Your task to perform on an android device: What's on my calendar today? Image 0: 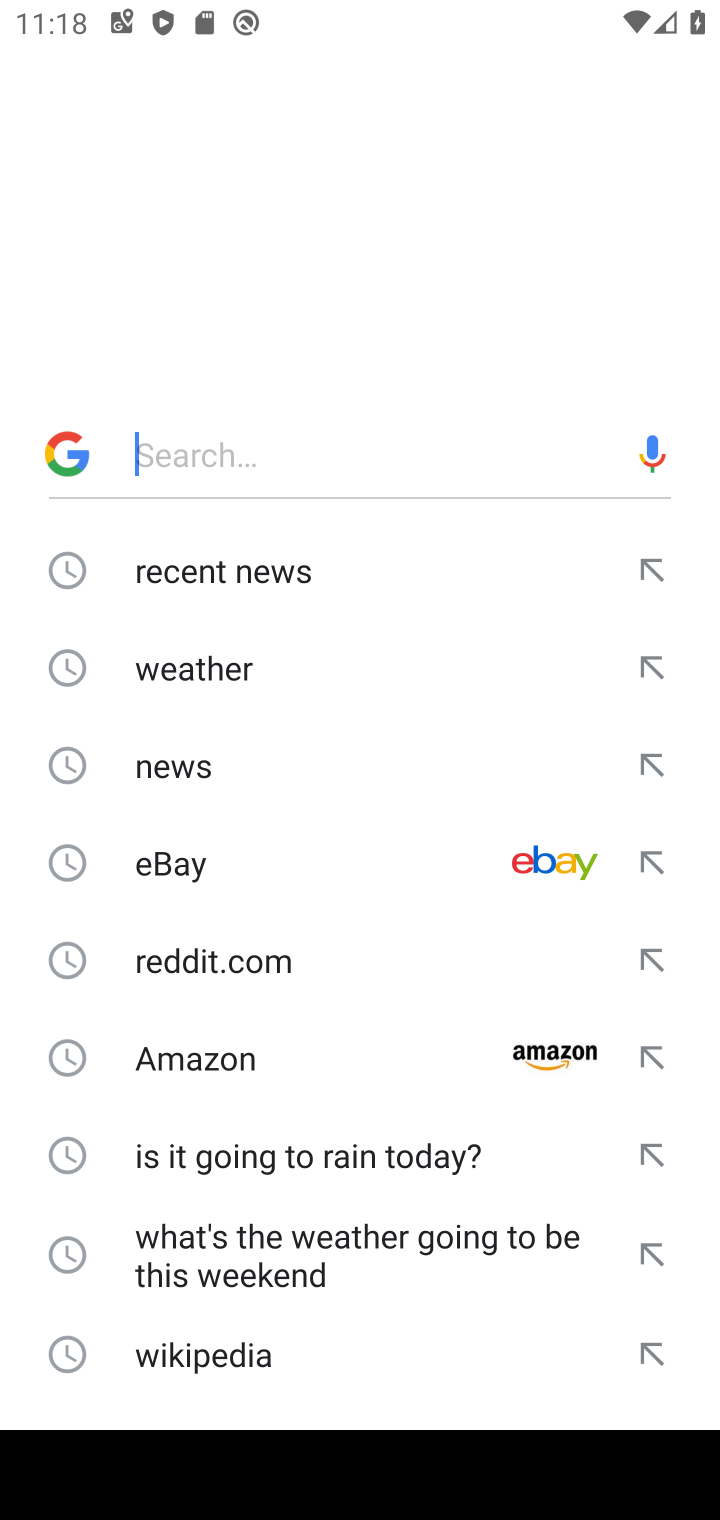
Step 0: press home button
Your task to perform on an android device: What's on my calendar today? Image 1: 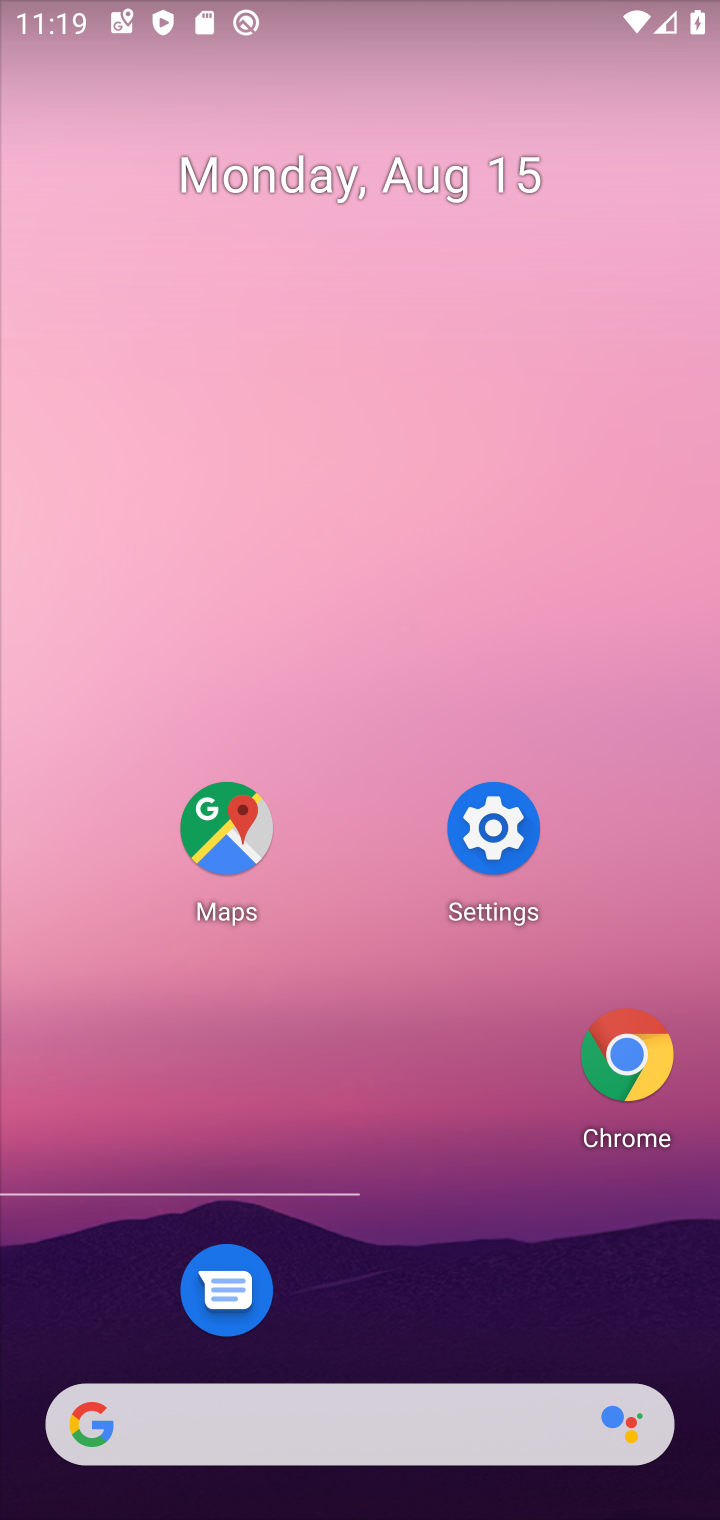
Step 1: drag from (271, 1415) to (637, 132)
Your task to perform on an android device: What's on my calendar today? Image 2: 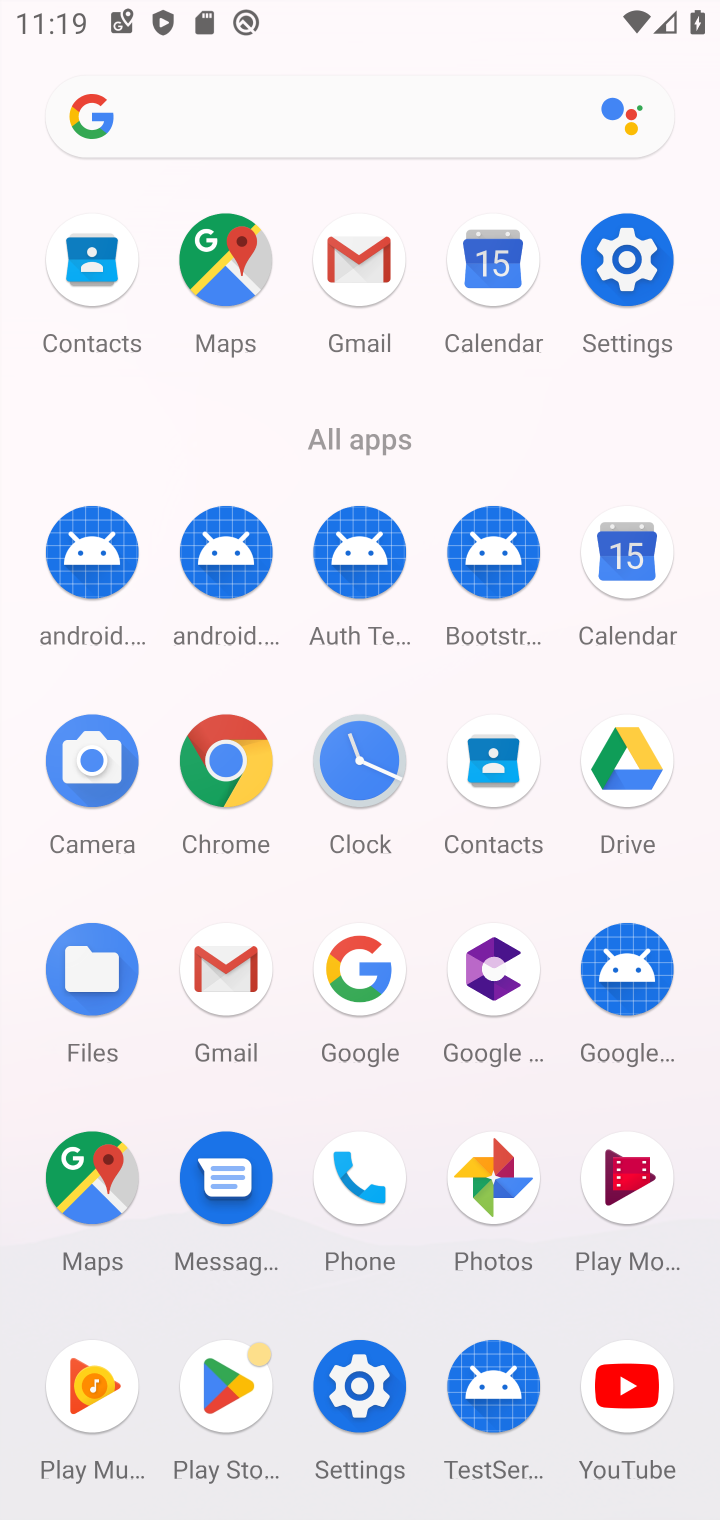
Step 2: click (631, 560)
Your task to perform on an android device: What's on my calendar today? Image 3: 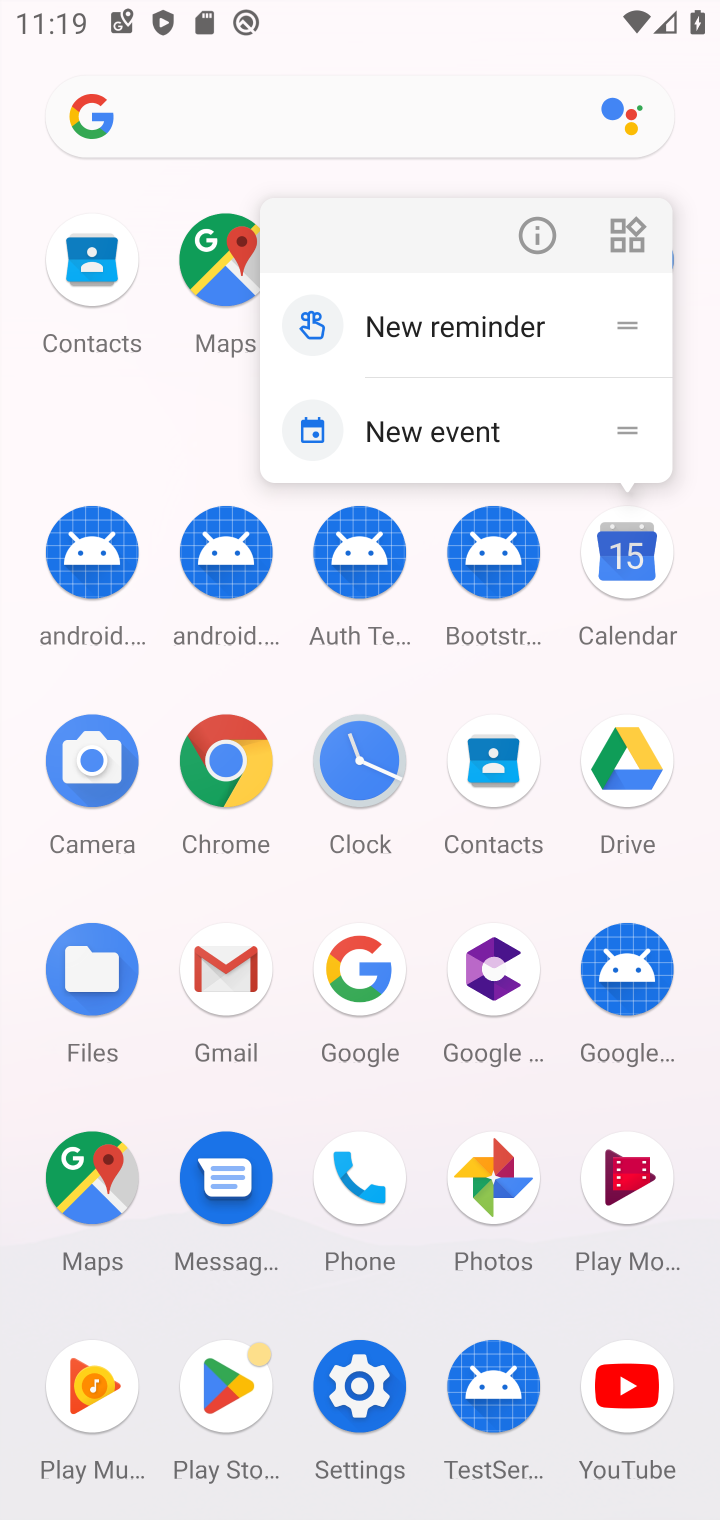
Step 3: click (630, 558)
Your task to perform on an android device: What's on my calendar today? Image 4: 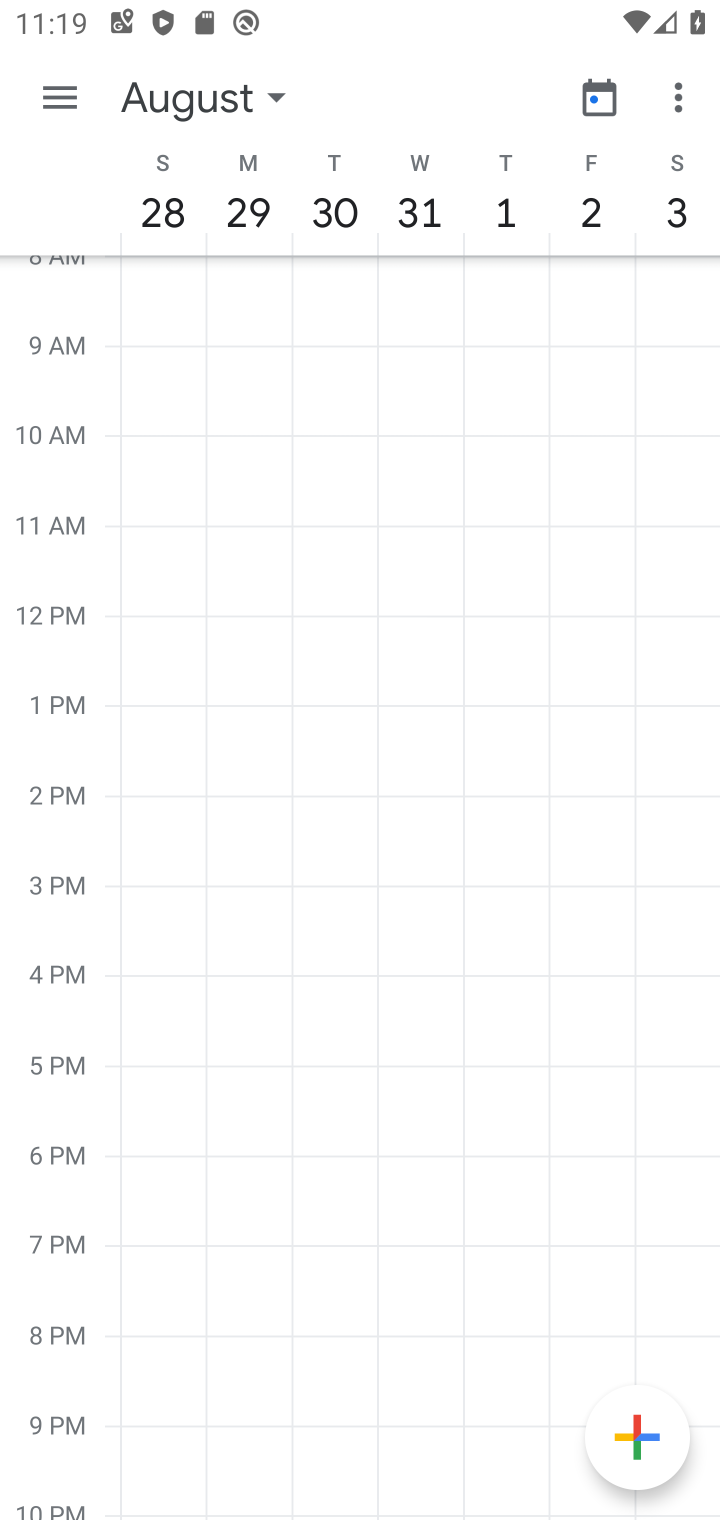
Step 4: click (164, 101)
Your task to perform on an android device: What's on my calendar today? Image 5: 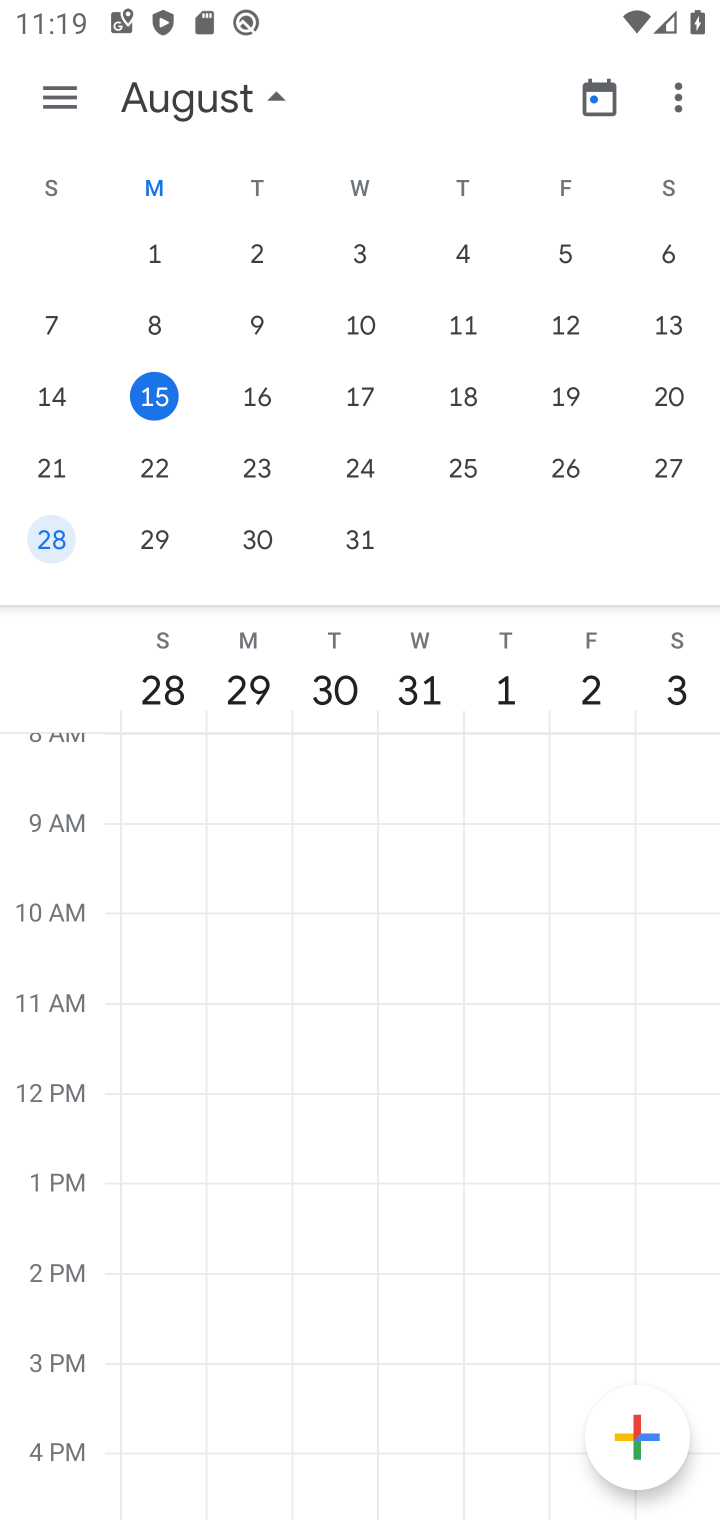
Step 5: click (144, 398)
Your task to perform on an android device: What's on my calendar today? Image 6: 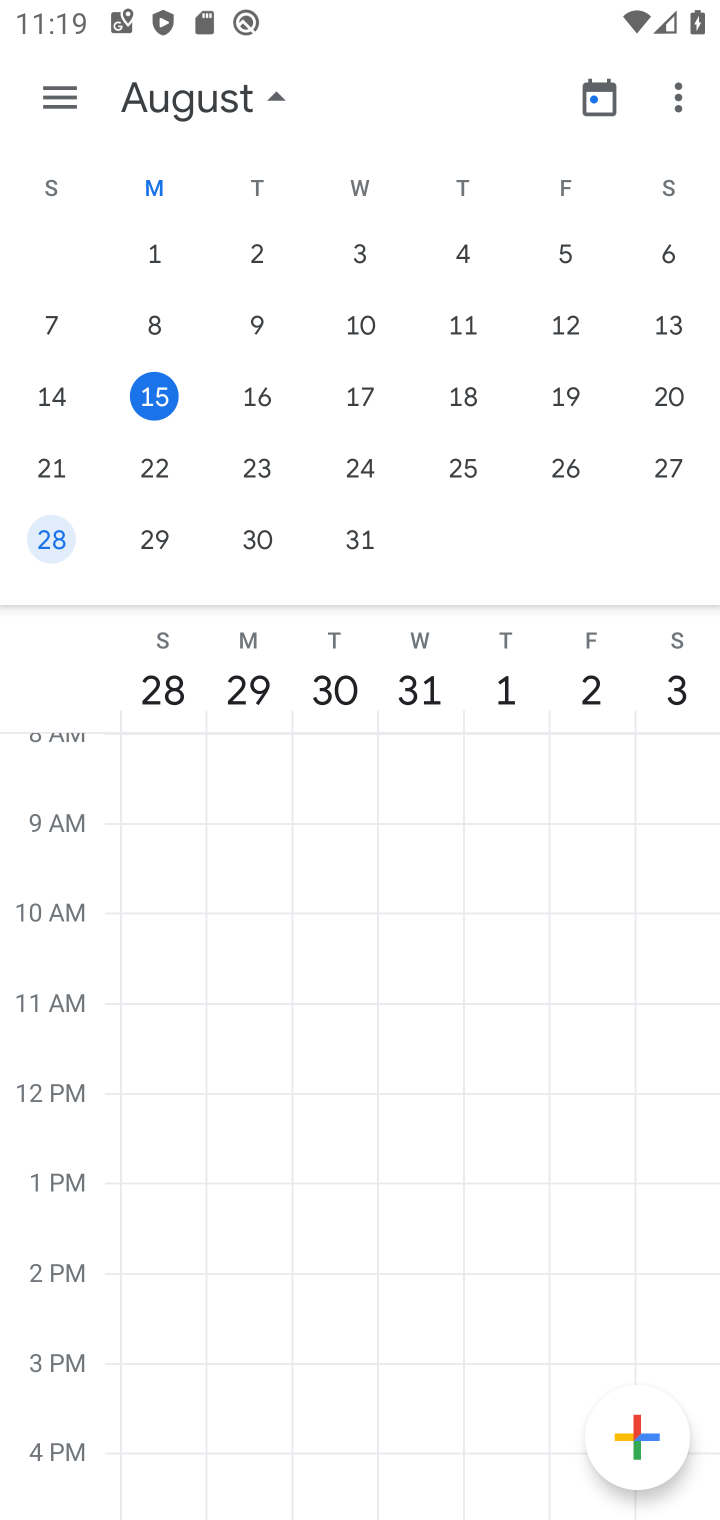
Step 6: click (184, 403)
Your task to perform on an android device: What's on my calendar today? Image 7: 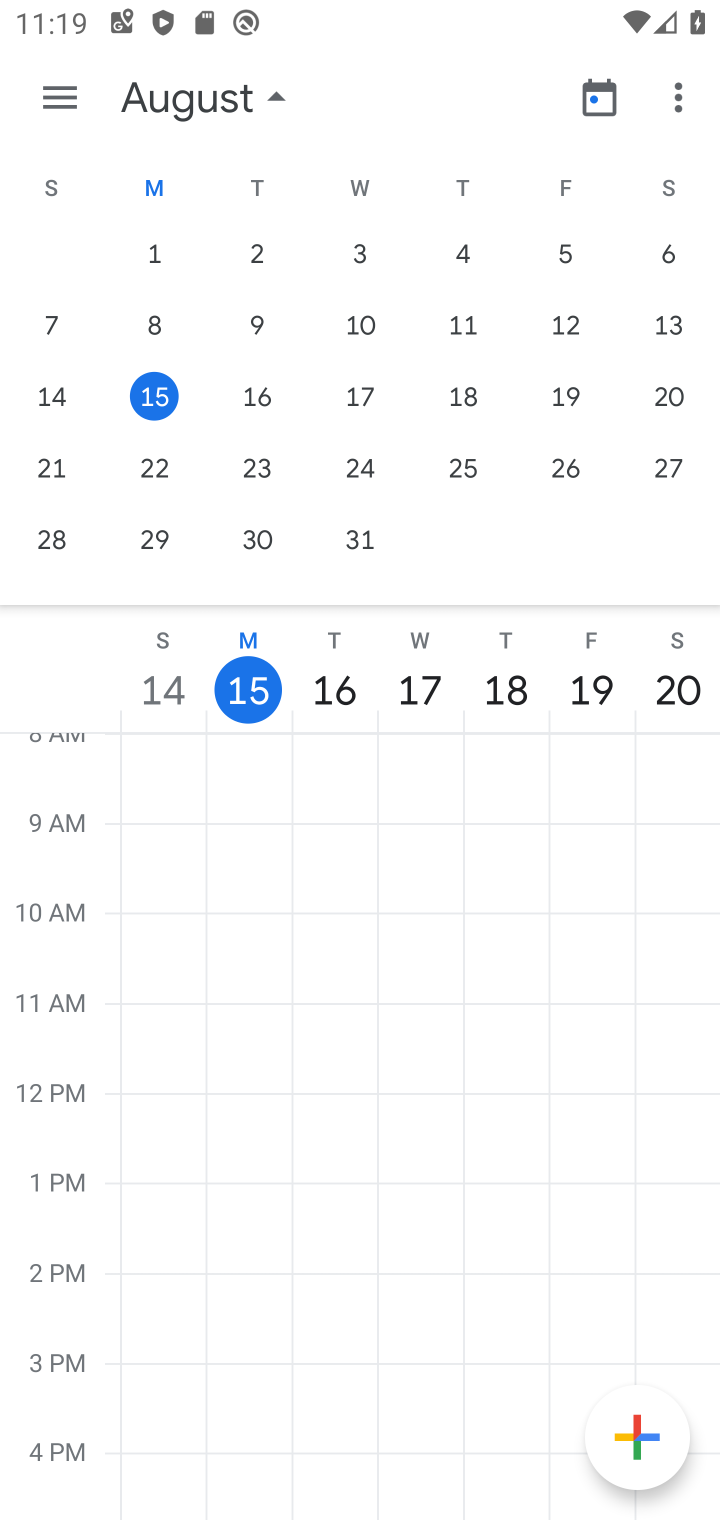
Step 7: click (48, 103)
Your task to perform on an android device: What's on my calendar today? Image 8: 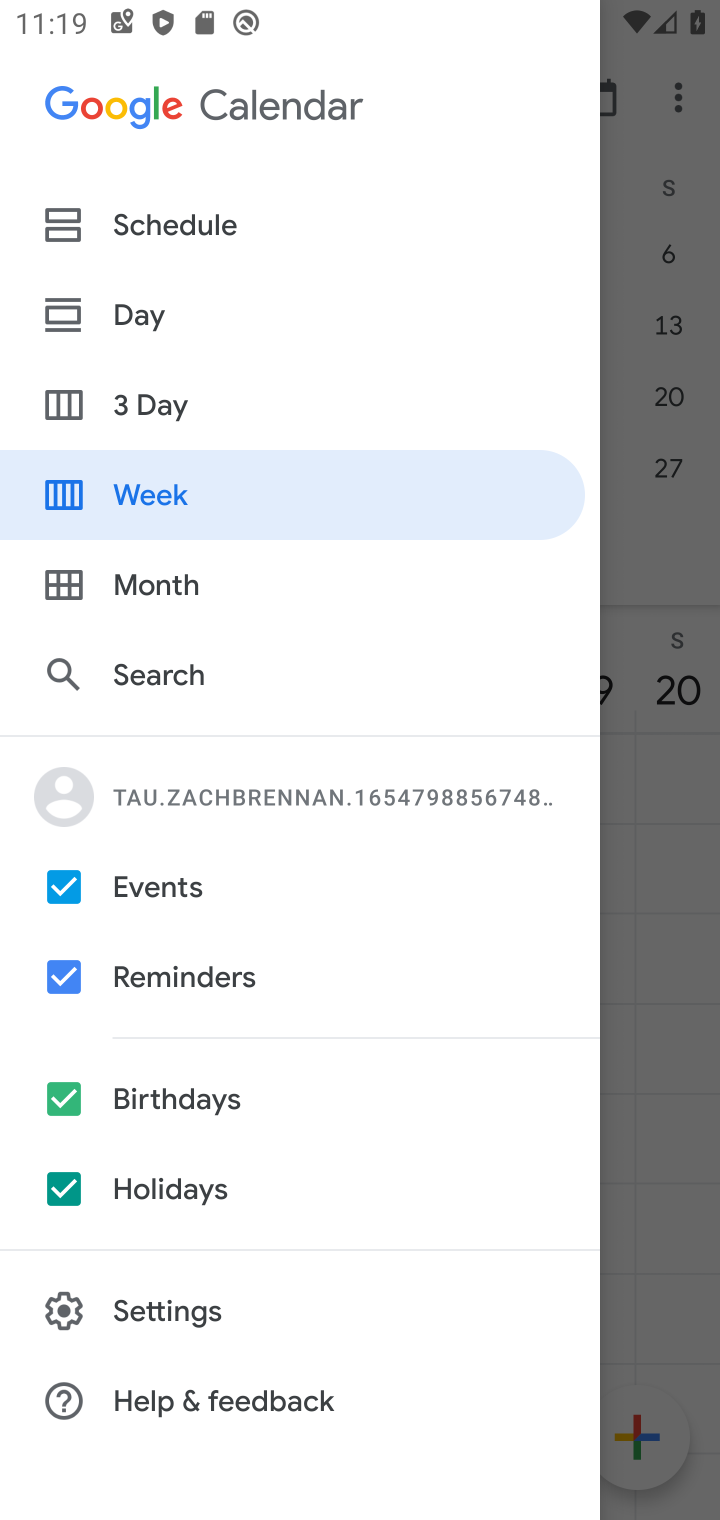
Step 8: click (145, 313)
Your task to perform on an android device: What's on my calendar today? Image 9: 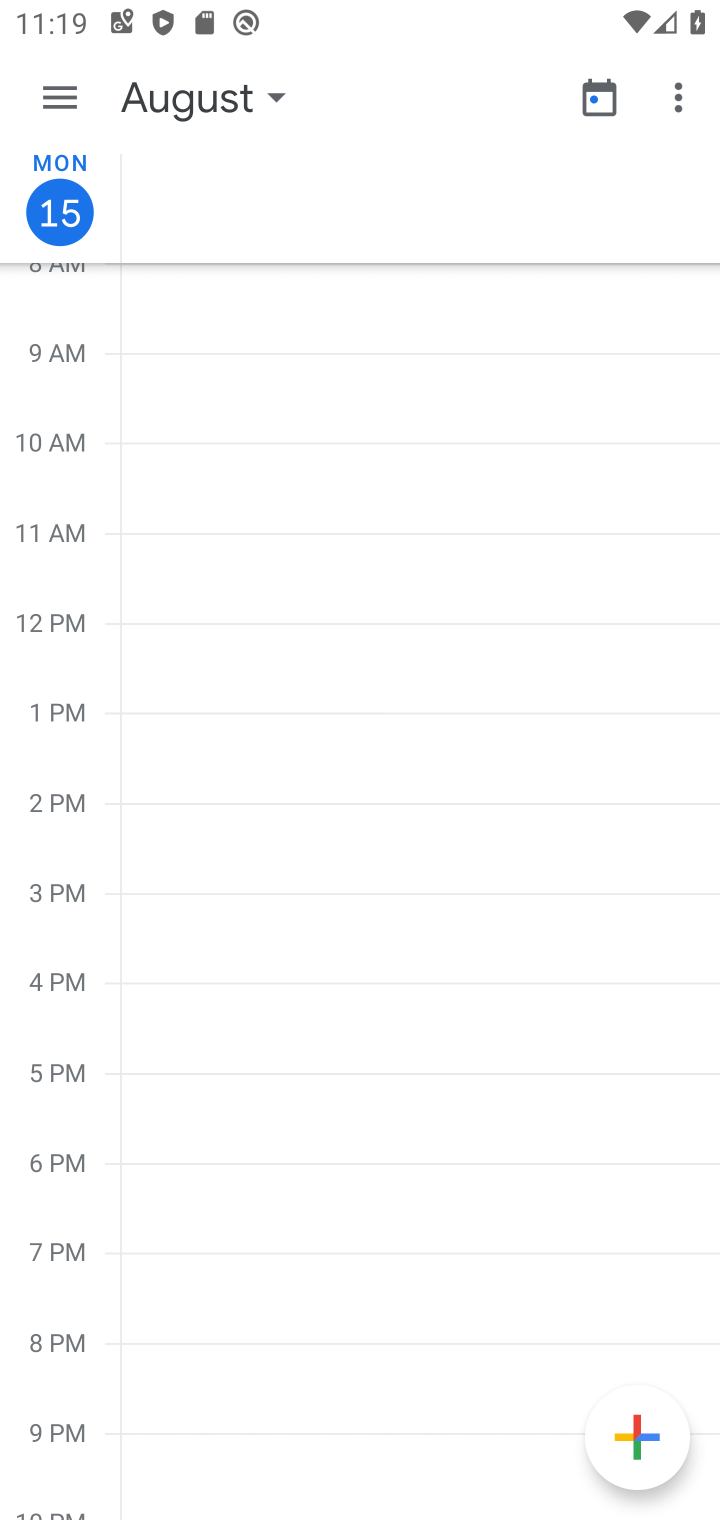
Step 9: click (75, 92)
Your task to perform on an android device: What's on my calendar today? Image 10: 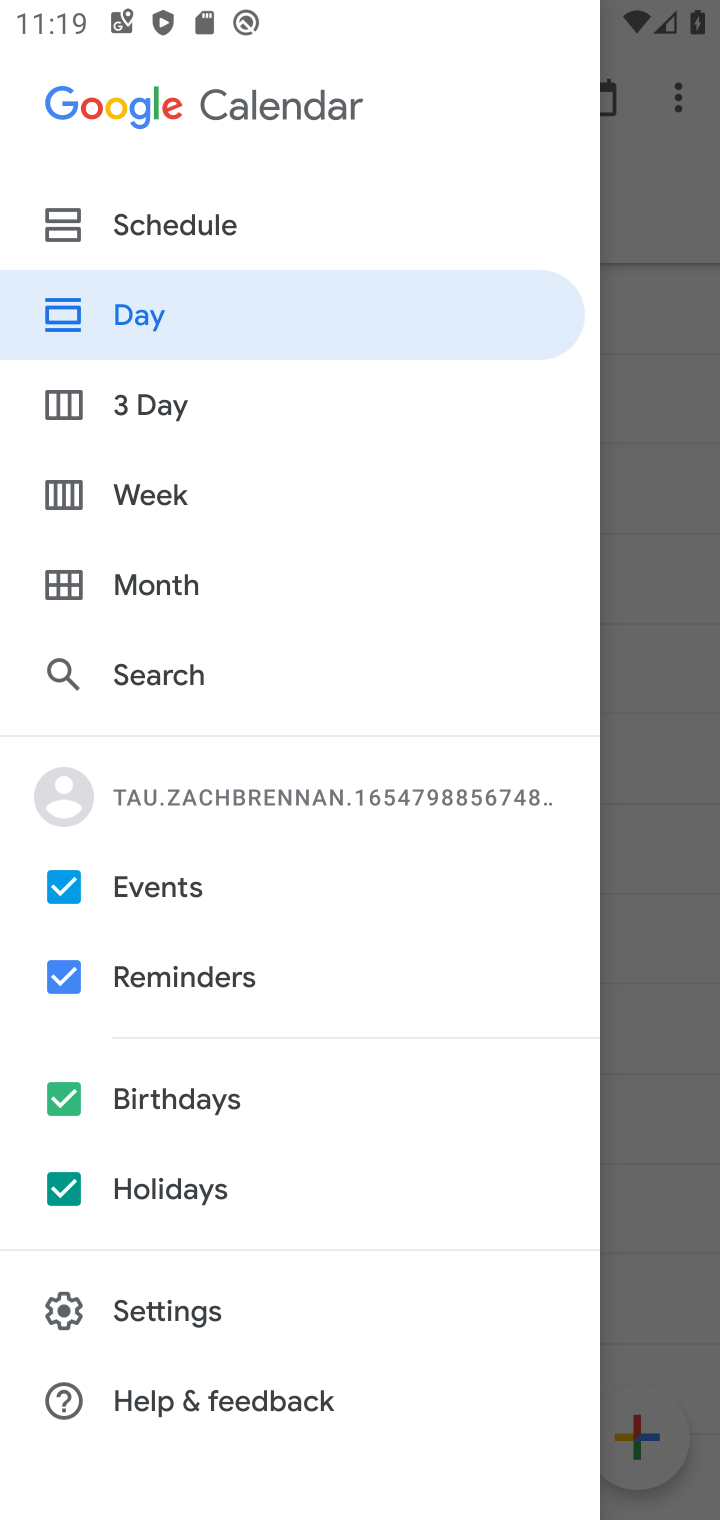
Step 10: click (177, 230)
Your task to perform on an android device: What's on my calendar today? Image 11: 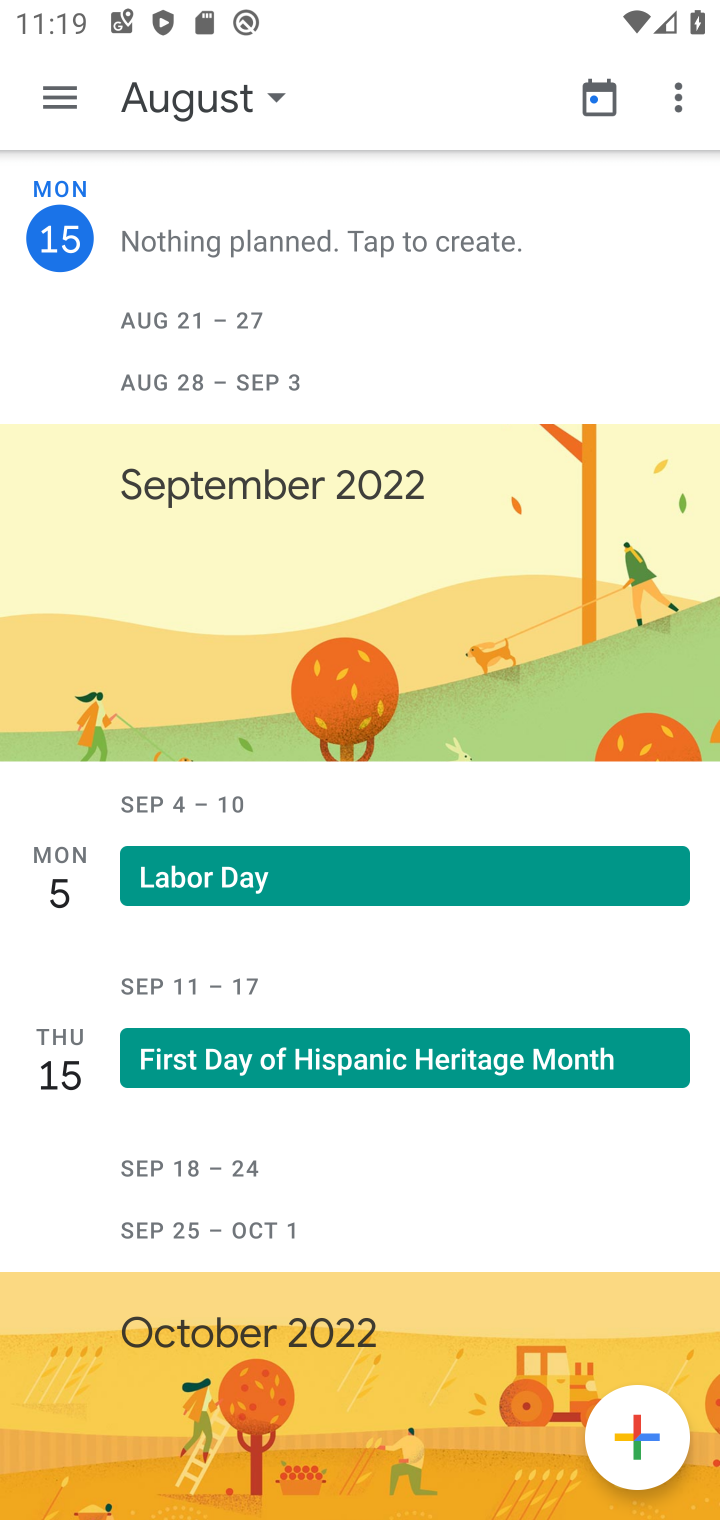
Step 11: task complete